Your task to perform on an android device: Open Chrome and go to the settings page Image 0: 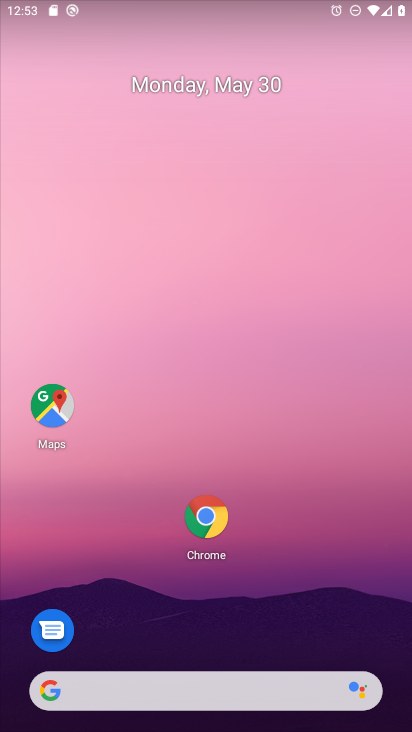
Step 0: press home button
Your task to perform on an android device: Open Chrome and go to the settings page Image 1: 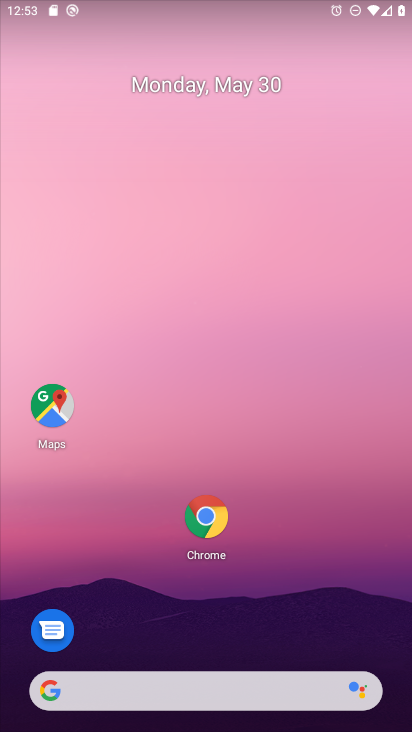
Step 1: click (210, 524)
Your task to perform on an android device: Open Chrome and go to the settings page Image 2: 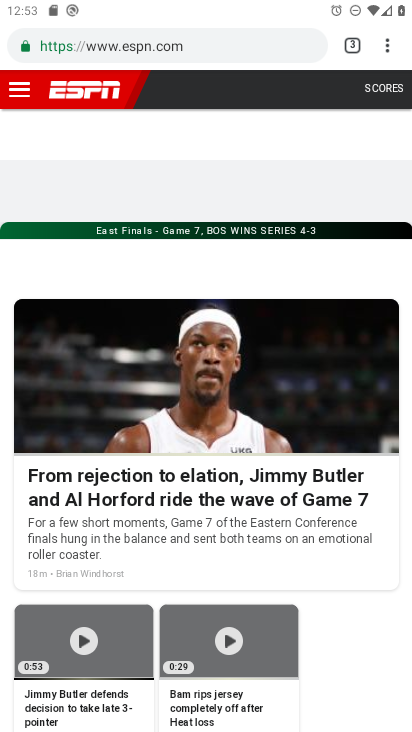
Step 2: task complete